Your task to perform on an android device: change keyboard looks Image 0: 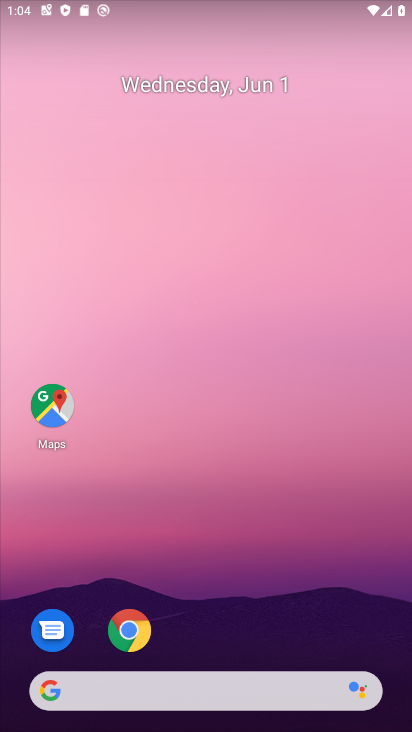
Step 0: press home button
Your task to perform on an android device: change keyboard looks Image 1: 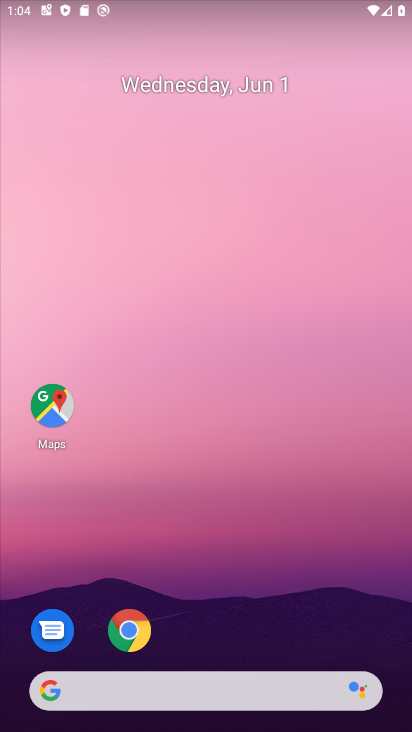
Step 1: drag from (258, 661) to (273, 127)
Your task to perform on an android device: change keyboard looks Image 2: 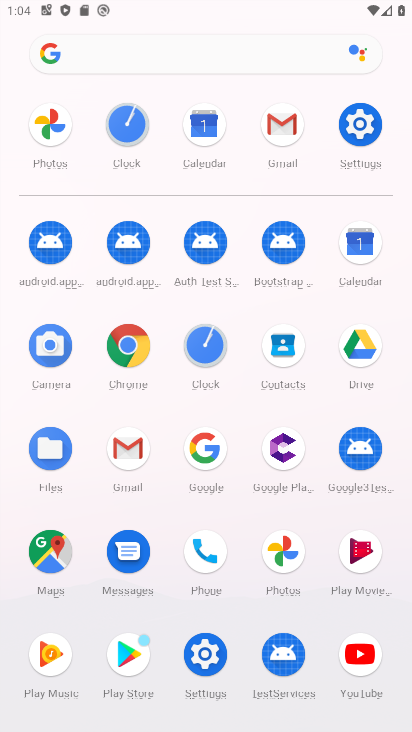
Step 2: click (367, 135)
Your task to perform on an android device: change keyboard looks Image 3: 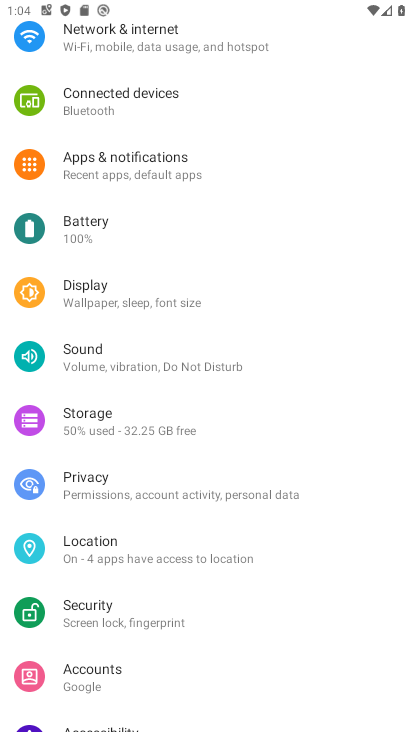
Step 3: drag from (246, 629) to (246, 190)
Your task to perform on an android device: change keyboard looks Image 4: 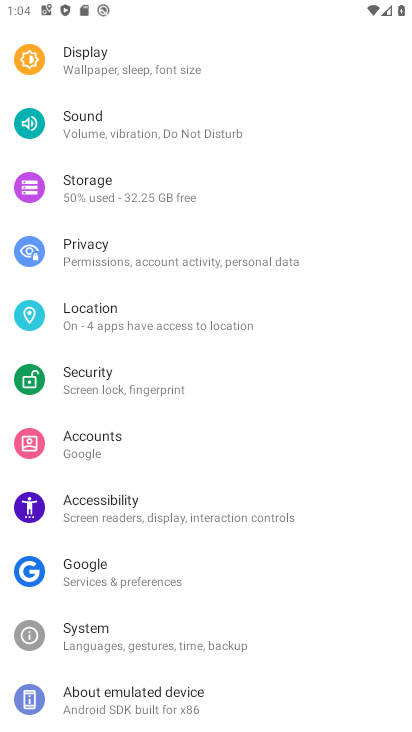
Step 4: click (85, 622)
Your task to perform on an android device: change keyboard looks Image 5: 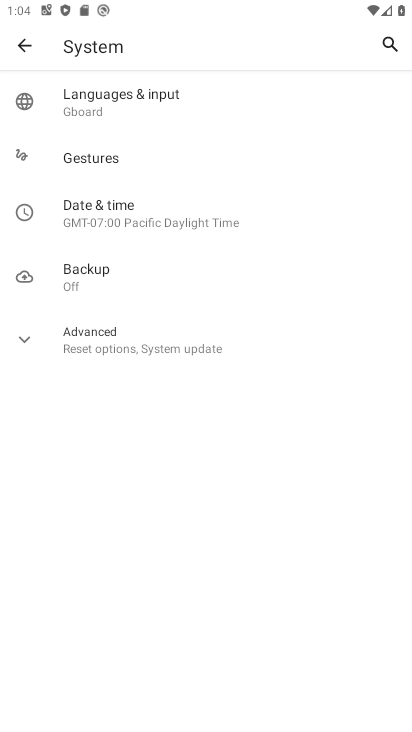
Step 5: click (99, 100)
Your task to perform on an android device: change keyboard looks Image 6: 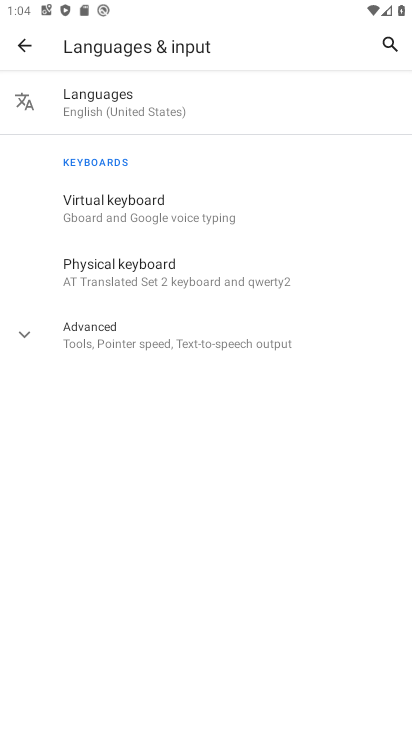
Step 6: click (110, 212)
Your task to perform on an android device: change keyboard looks Image 7: 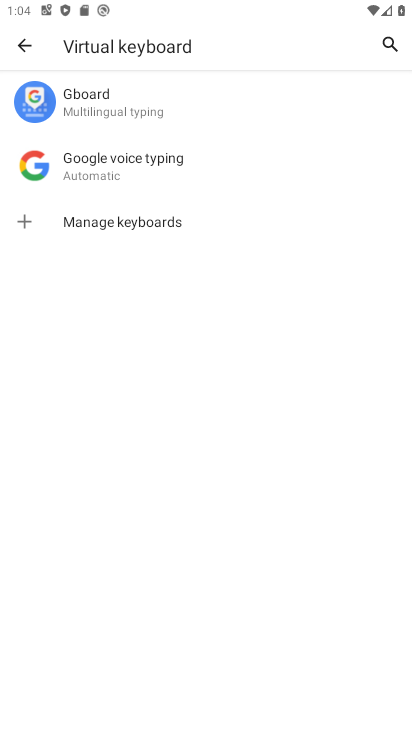
Step 7: click (94, 102)
Your task to perform on an android device: change keyboard looks Image 8: 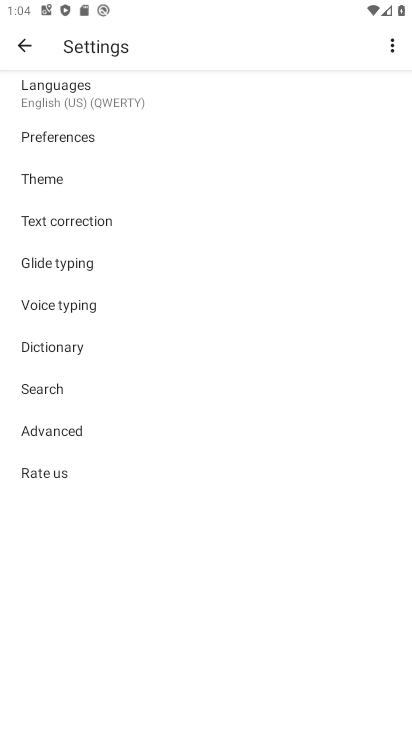
Step 8: click (45, 176)
Your task to perform on an android device: change keyboard looks Image 9: 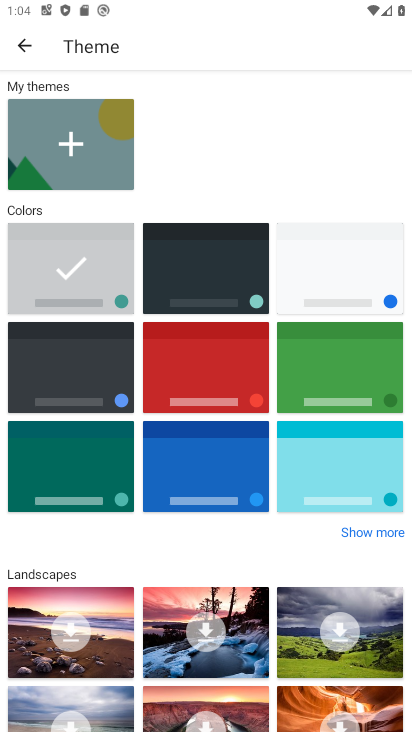
Step 9: click (196, 275)
Your task to perform on an android device: change keyboard looks Image 10: 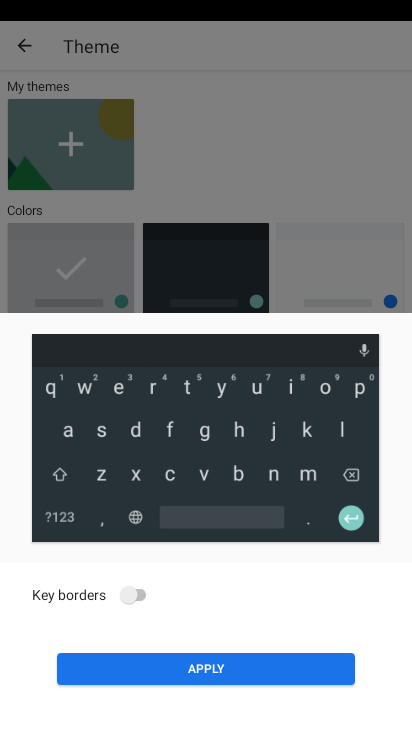
Step 10: click (257, 674)
Your task to perform on an android device: change keyboard looks Image 11: 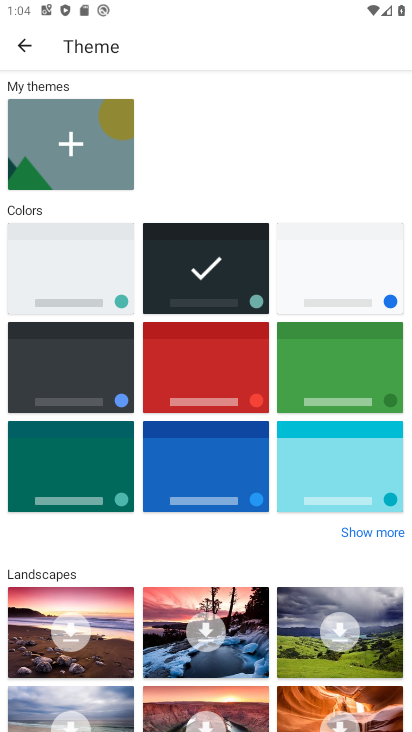
Step 11: task complete